Your task to perform on an android device: change the clock display to digital Image 0: 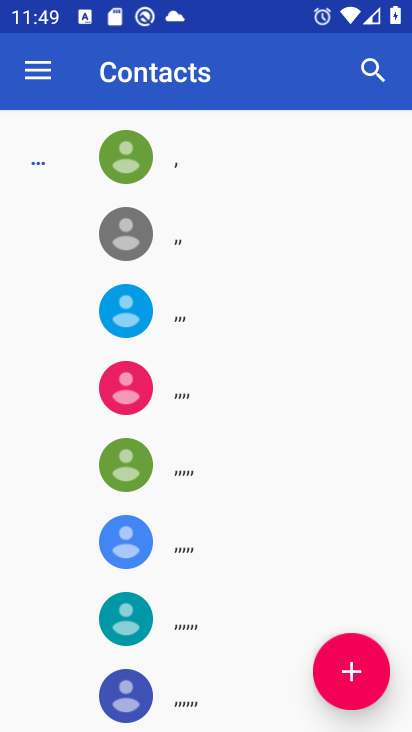
Step 0: task complete